Your task to perform on an android device: show emergency info Image 0: 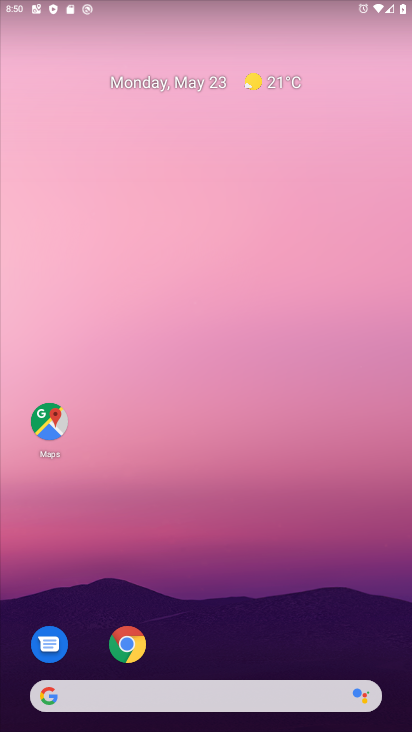
Step 0: drag from (245, 674) to (250, 227)
Your task to perform on an android device: show emergency info Image 1: 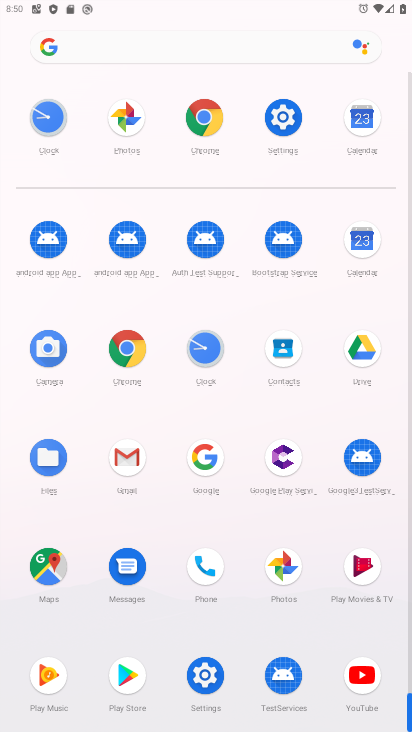
Step 1: click (291, 121)
Your task to perform on an android device: show emergency info Image 2: 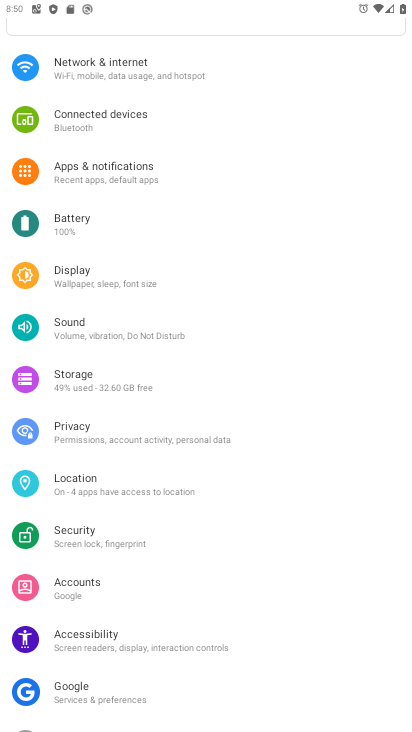
Step 2: drag from (269, 647) to (247, 22)
Your task to perform on an android device: show emergency info Image 3: 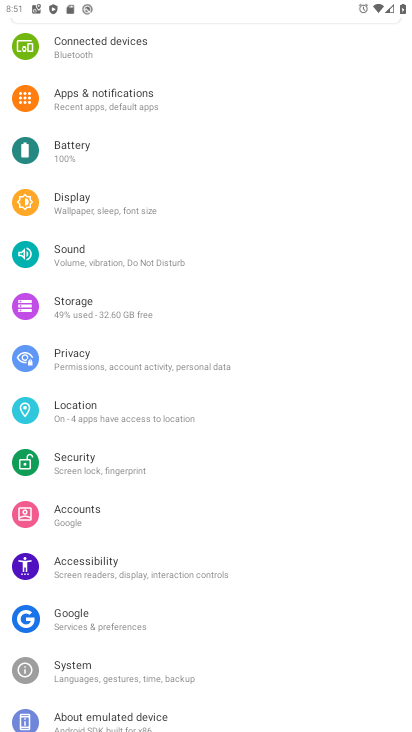
Step 3: drag from (257, 647) to (98, 42)
Your task to perform on an android device: show emergency info Image 4: 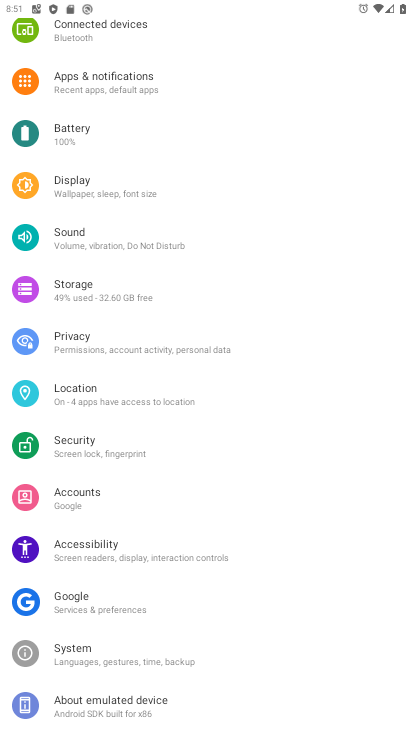
Step 4: click (130, 716)
Your task to perform on an android device: show emergency info Image 5: 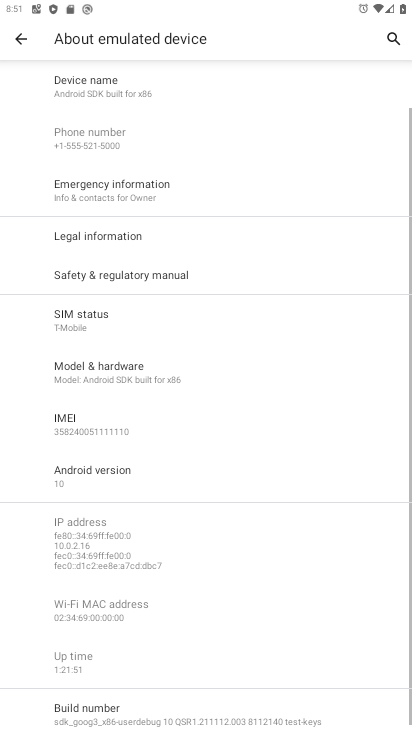
Step 5: click (176, 187)
Your task to perform on an android device: show emergency info Image 6: 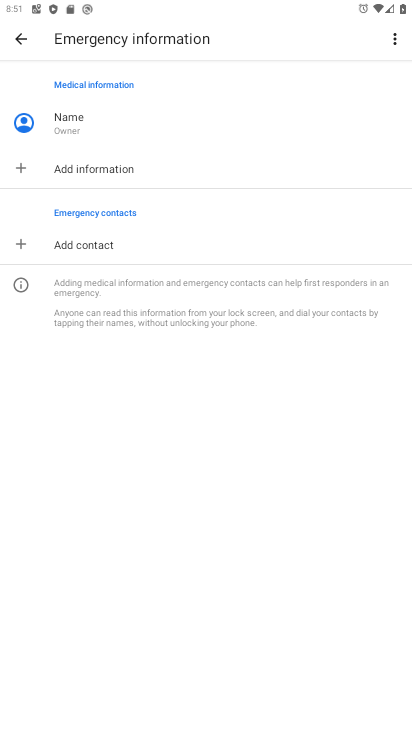
Step 6: task complete